Your task to perform on an android device: Open the Play Movies app and select the watchlist tab. Image 0: 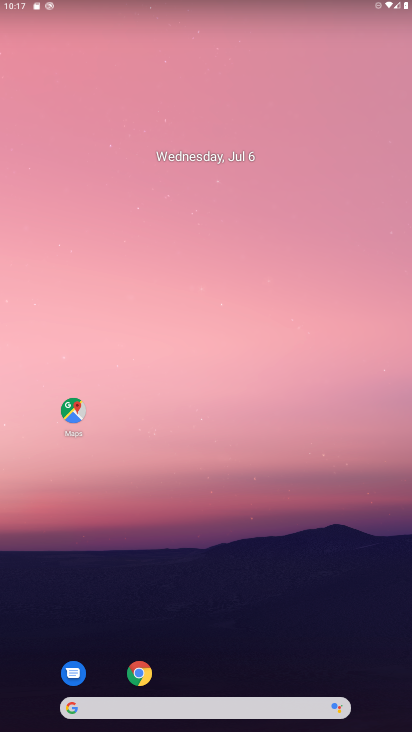
Step 0: drag from (203, 671) to (178, 90)
Your task to perform on an android device: Open the Play Movies app and select the watchlist tab. Image 1: 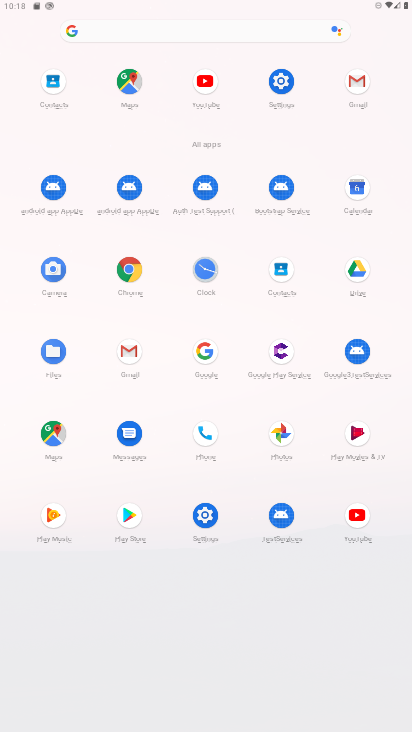
Step 1: click (356, 430)
Your task to perform on an android device: Open the Play Movies app and select the watchlist tab. Image 2: 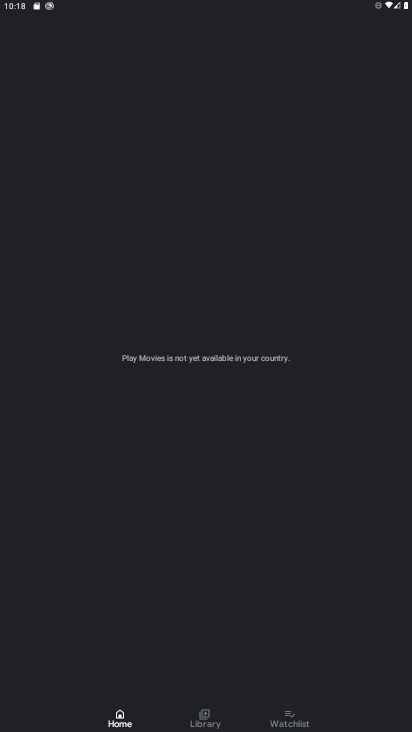
Step 2: click (310, 723)
Your task to perform on an android device: Open the Play Movies app and select the watchlist tab. Image 3: 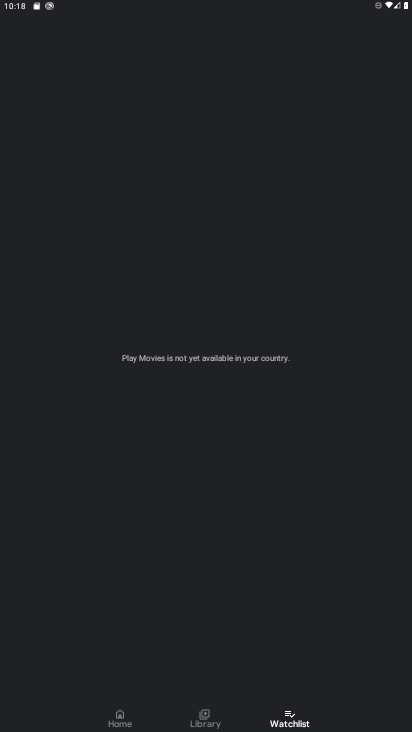
Step 3: task complete